Your task to perform on an android device: What's the weather today? Image 0: 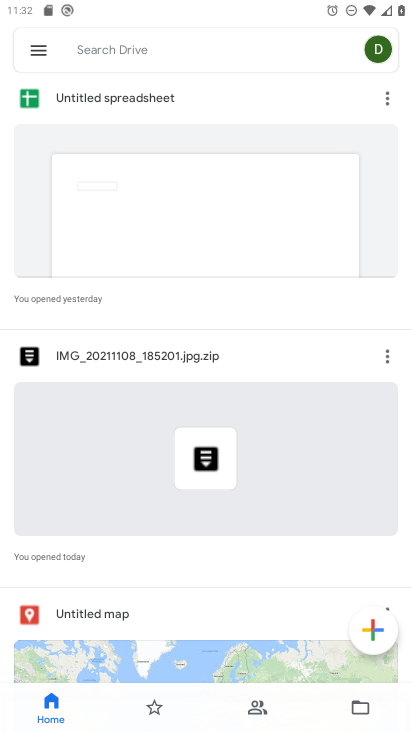
Step 0: press home button
Your task to perform on an android device: What's the weather today? Image 1: 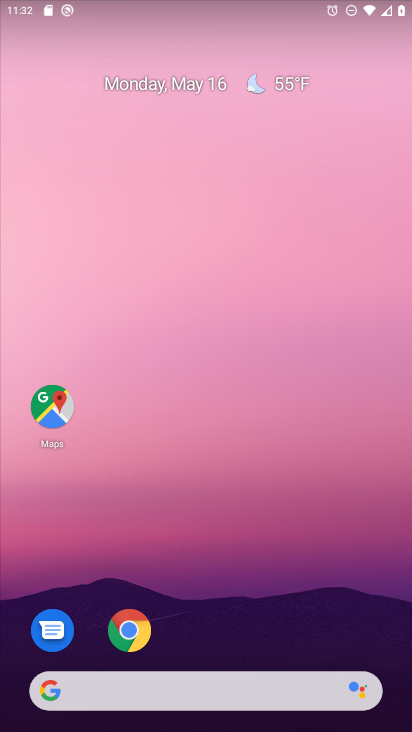
Step 1: drag from (227, 641) to (236, 231)
Your task to perform on an android device: What's the weather today? Image 2: 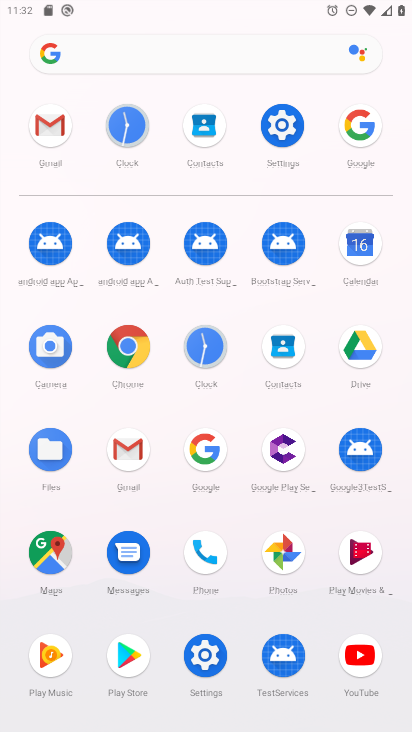
Step 2: click (364, 126)
Your task to perform on an android device: What's the weather today? Image 3: 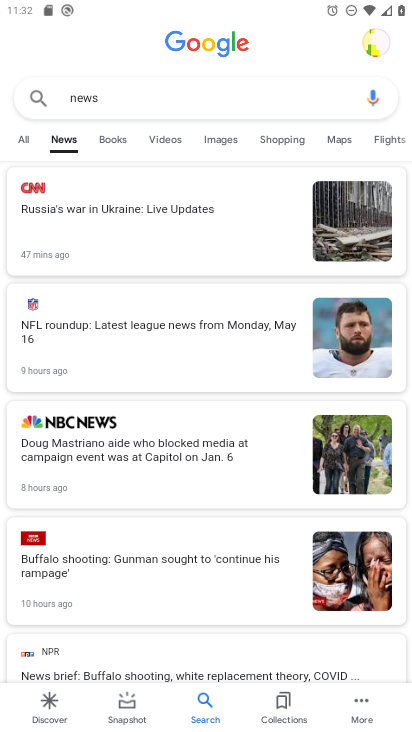
Step 3: click (232, 98)
Your task to perform on an android device: What's the weather today? Image 4: 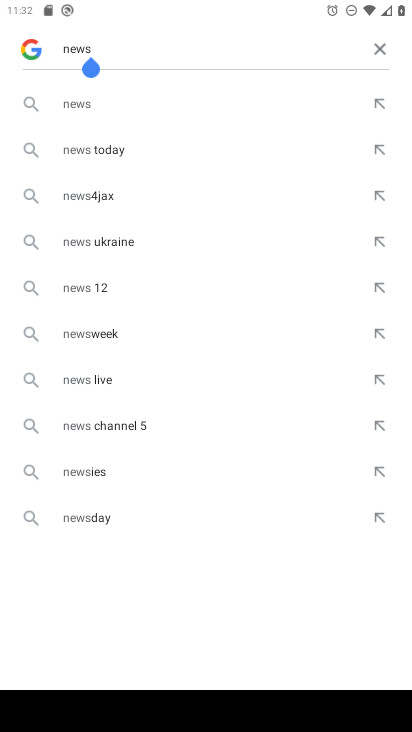
Step 4: click (375, 43)
Your task to perform on an android device: What's the weather today? Image 5: 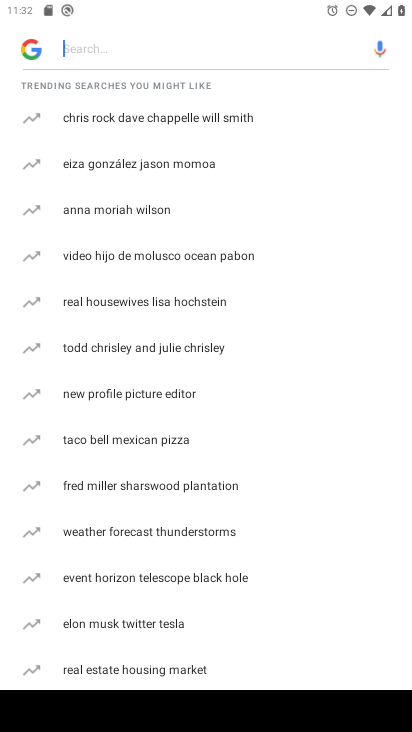
Step 5: type " weather"
Your task to perform on an android device: What's the weather today? Image 6: 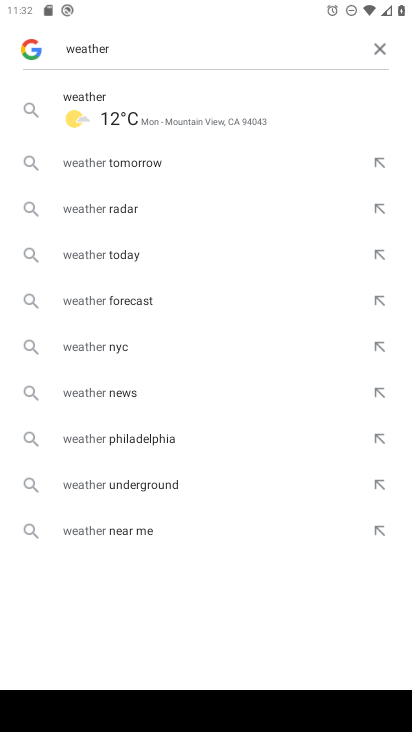
Step 6: click (133, 112)
Your task to perform on an android device: What's the weather today? Image 7: 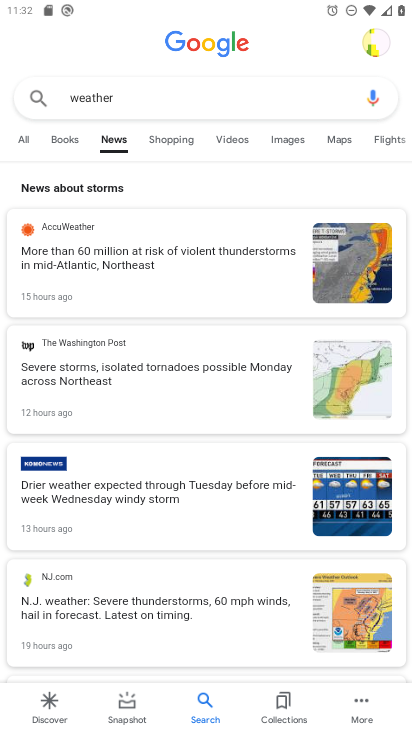
Step 7: click (26, 142)
Your task to perform on an android device: What's the weather today? Image 8: 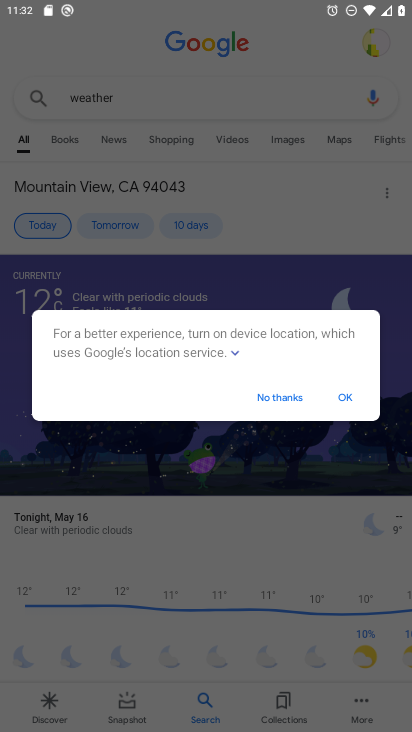
Step 8: click (340, 395)
Your task to perform on an android device: What's the weather today? Image 9: 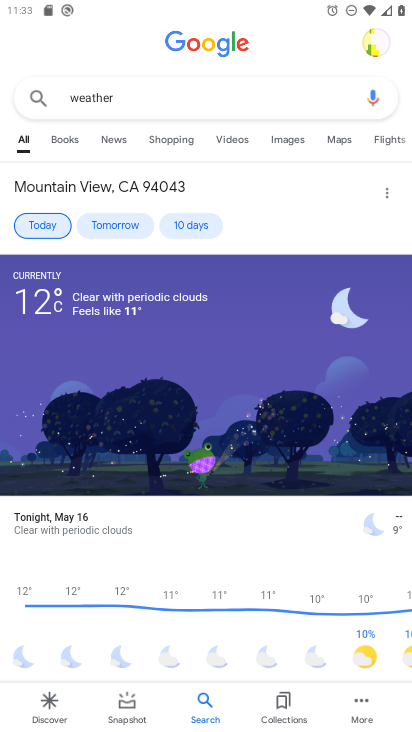
Step 9: task complete